Your task to perform on an android device: When is my next meeting? Image 0: 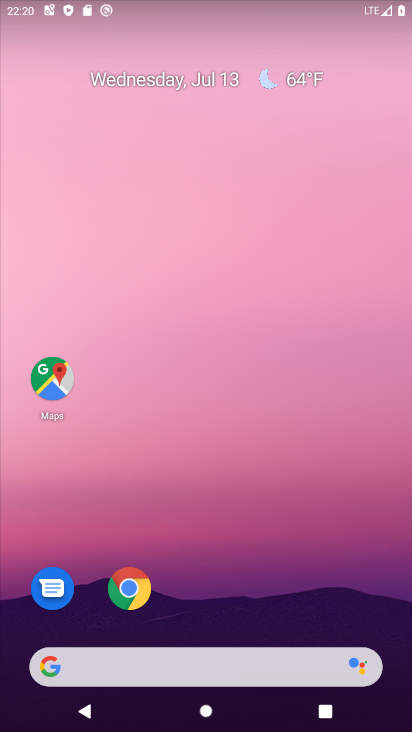
Step 0: drag from (262, 260) to (275, 76)
Your task to perform on an android device: When is my next meeting? Image 1: 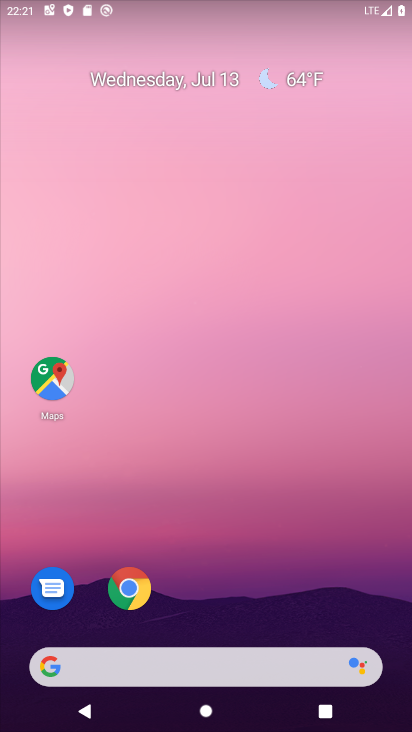
Step 1: drag from (219, 596) to (221, 17)
Your task to perform on an android device: When is my next meeting? Image 2: 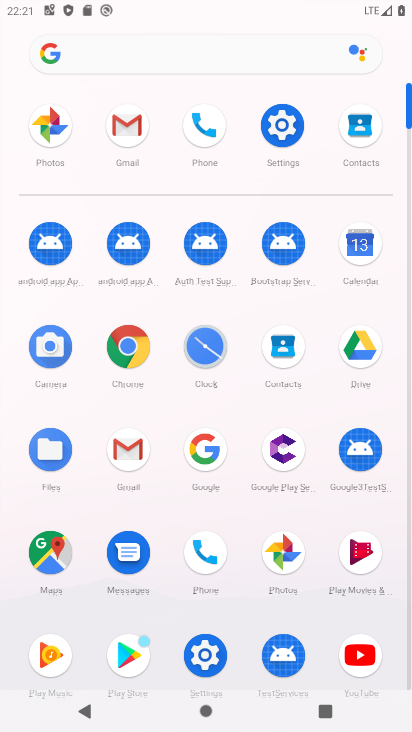
Step 2: click (361, 243)
Your task to perform on an android device: When is my next meeting? Image 3: 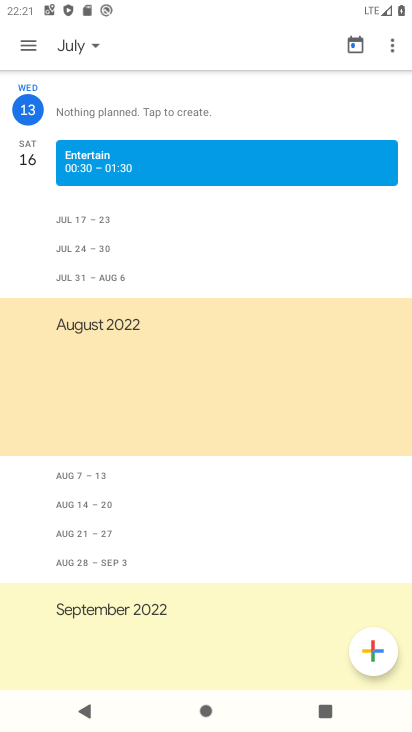
Step 3: task complete